Your task to perform on an android device: Play the last video I watched on Youtube Image 0: 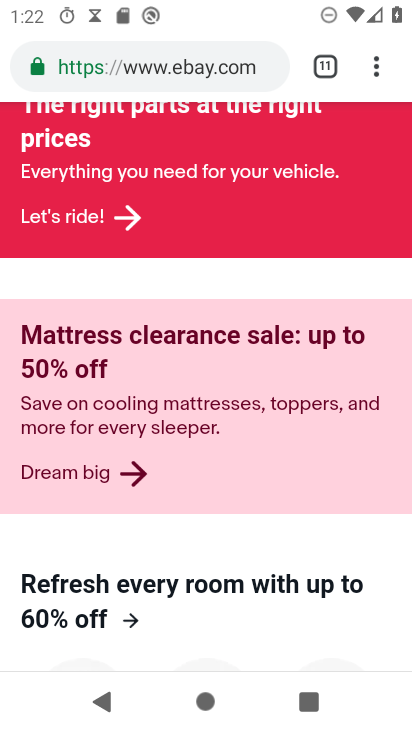
Step 0: press home button
Your task to perform on an android device: Play the last video I watched on Youtube Image 1: 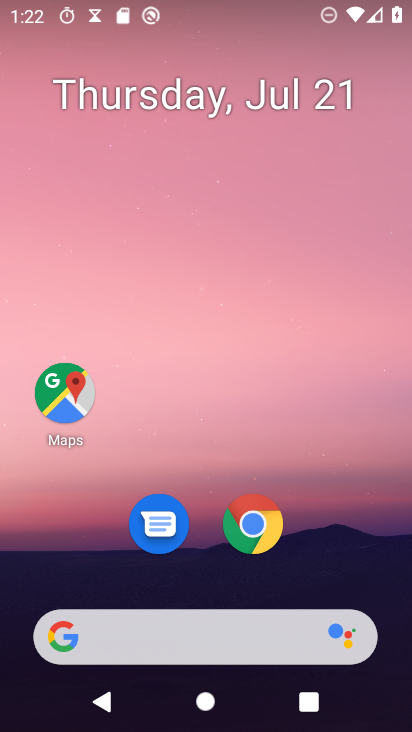
Step 1: drag from (221, 598) to (247, 134)
Your task to perform on an android device: Play the last video I watched on Youtube Image 2: 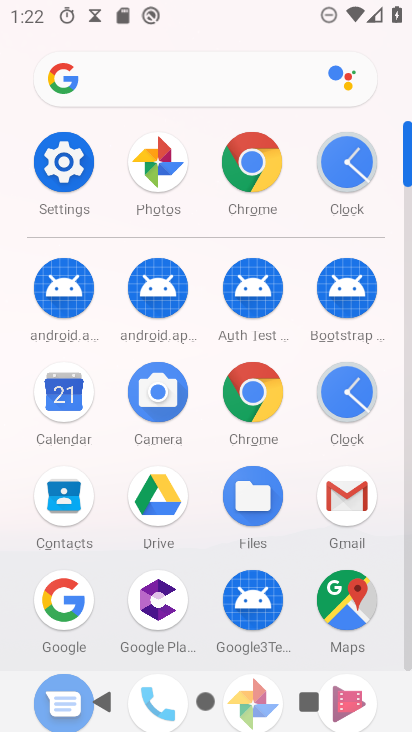
Step 2: drag from (206, 586) to (299, 282)
Your task to perform on an android device: Play the last video I watched on Youtube Image 3: 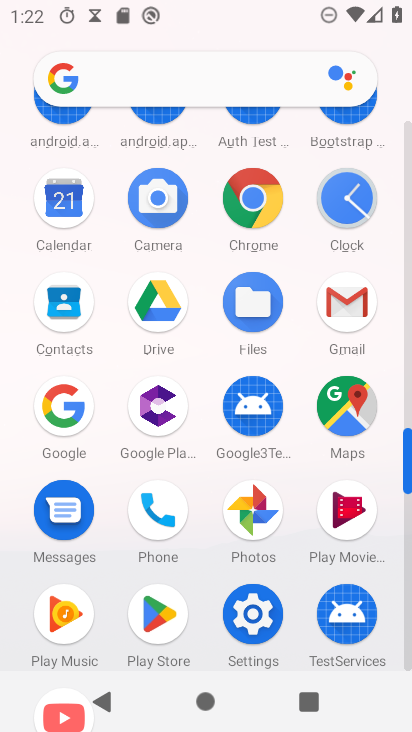
Step 3: drag from (199, 621) to (336, 239)
Your task to perform on an android device: Play the last video I watched on Youtube Image 4: 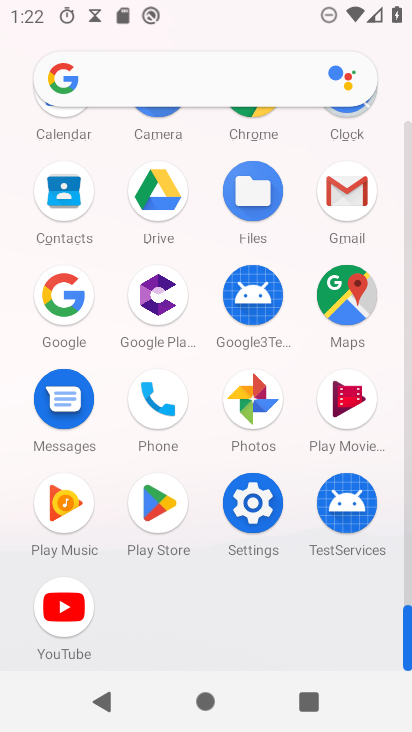
Step 4: click (64, 600)
Your task to perform on an android device: Play the last video I watched on Youtube Image 5: 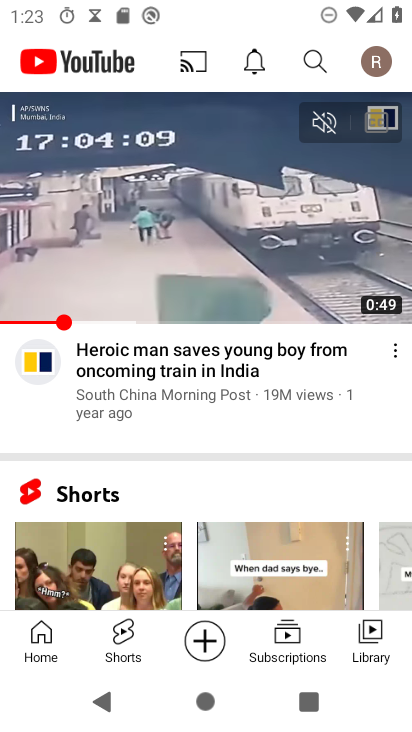
Step 5: click (359, 645)
Your task to perform on an android device: Play the last video I watched on Youtube Image 6: 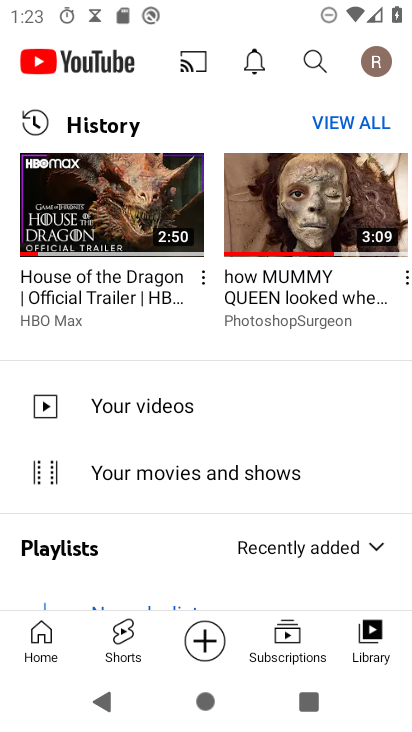
Step 6: click (108, 211)
Your task to perform on an android device: Play the last video I watched on Youtube Image 7: 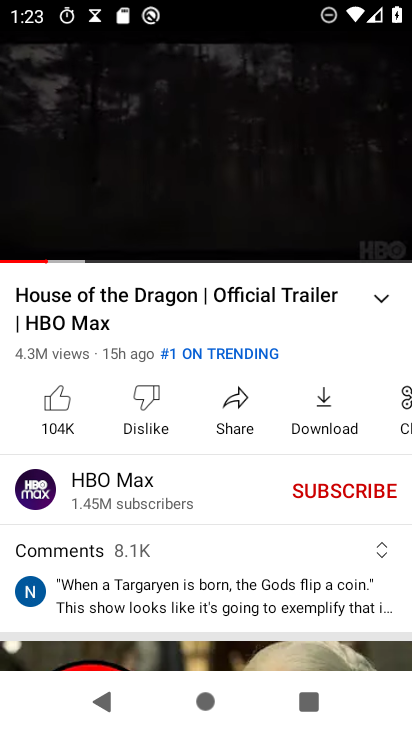
Step 7: click (232, 158)
Your task to perform on an android device: Play the last video I watched on Youtube Image 8: 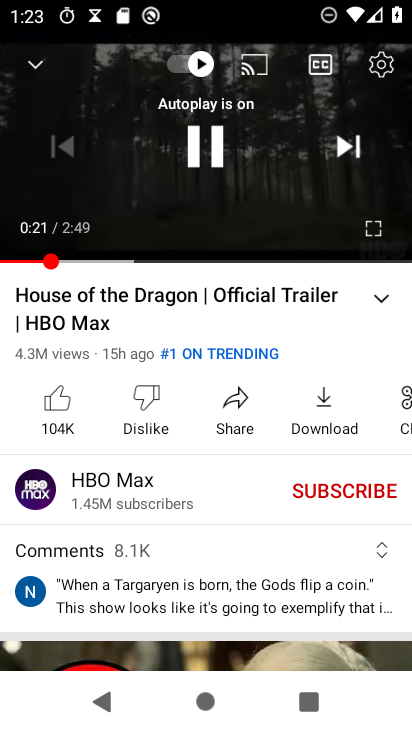
Step 8: click (216, 154)
Your task to perform on an android device: Play the last video I watched on Youtube Image 9: 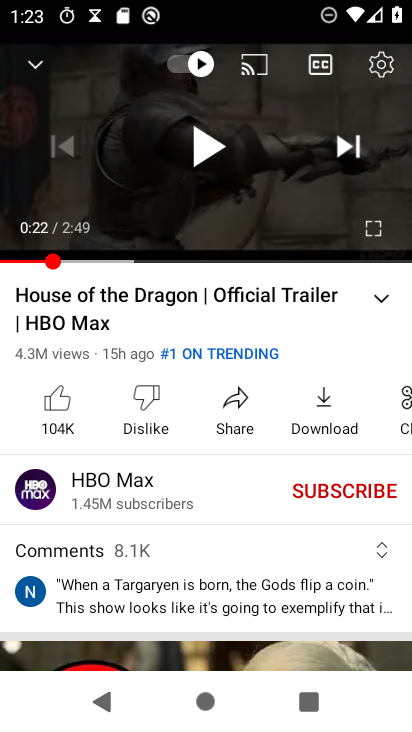
Step 9: task complete